Your task to perform on an android device: check battery use Image 0: 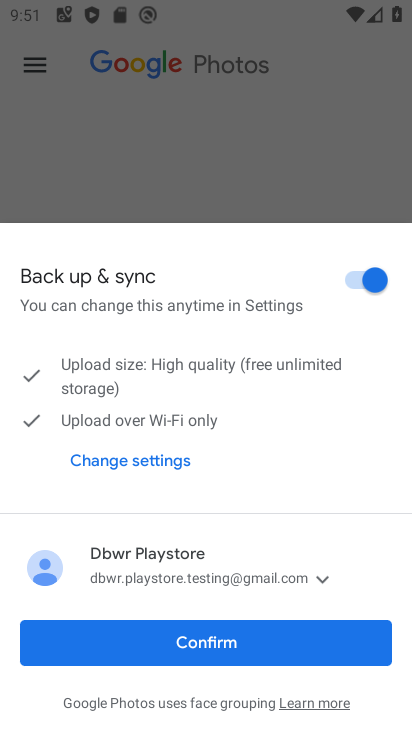
Step 0: press home button
Your task to perform on an android device: check battery use Image 1: 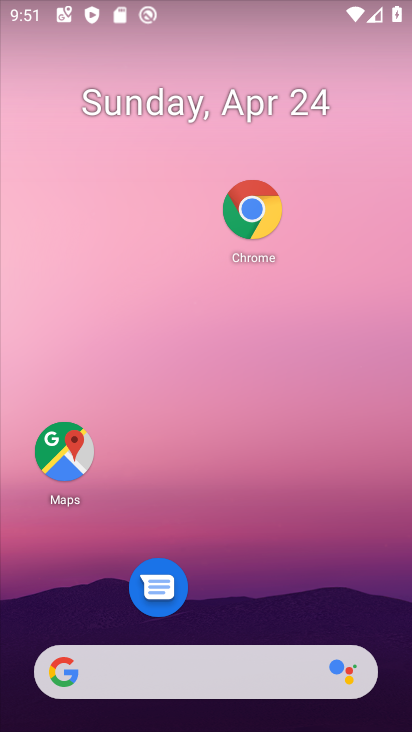
Step 1: drag from (221, 632) to (206, 65)
Your task to perform on an android device: check battery use Image 2: 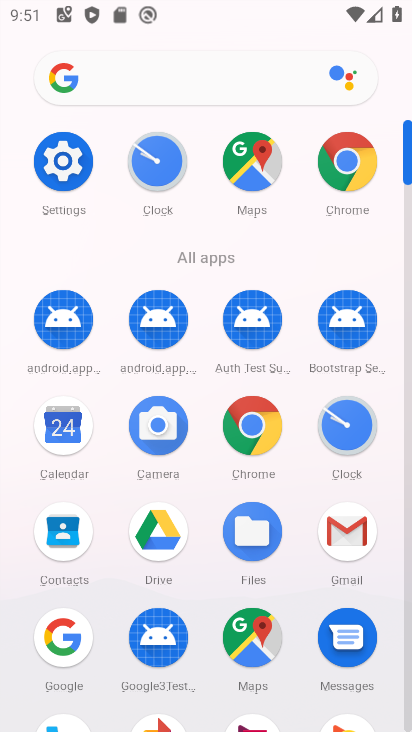
Step 2: click (57, 155)
Your task to perform on an android device: check battery use Image 3: 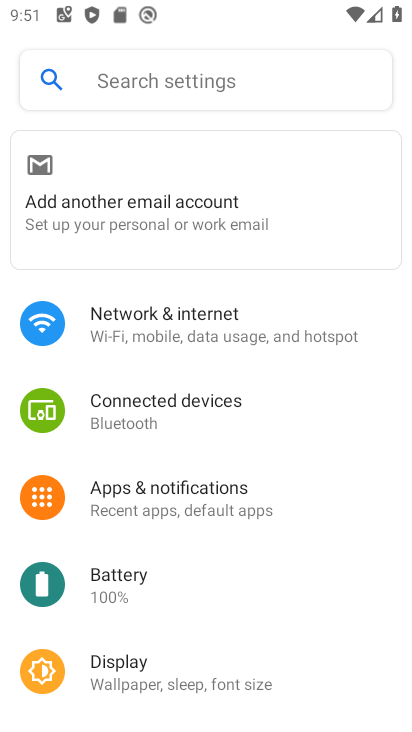
Step 3: click (145, 585)
Your task to perform on an android device: check battery use Image 4: 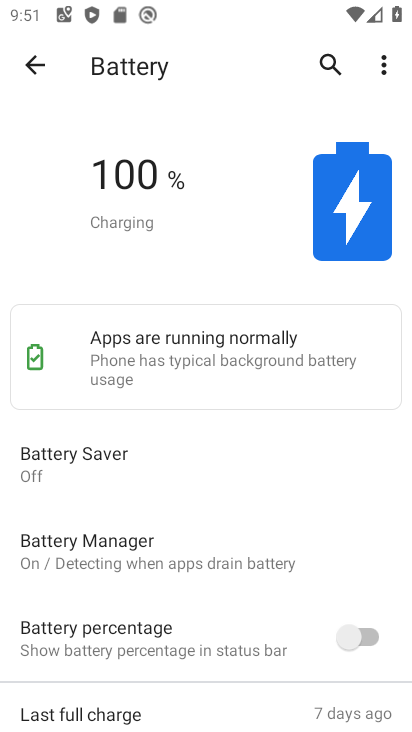
Step 4: click (385, 57)
Your task to perform on an android device: check battery use Image 5: 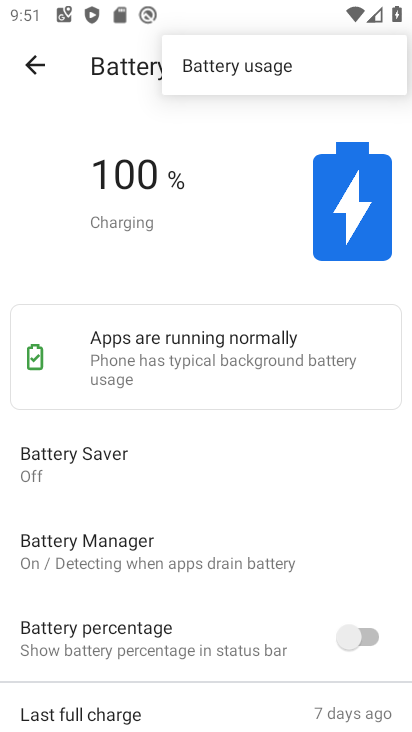
Step 5: click (303, 75)
Your task to perform on an android device: check battery use Image 6: 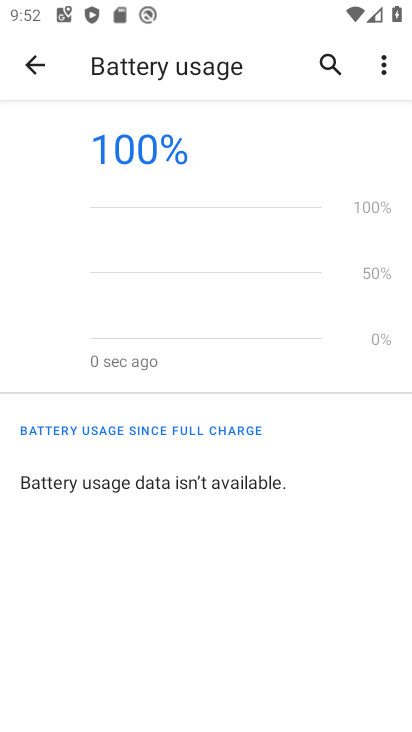
Step 6: task complete